Your task to perform on an android device: turn off smart reply in the gmail app Image 0: 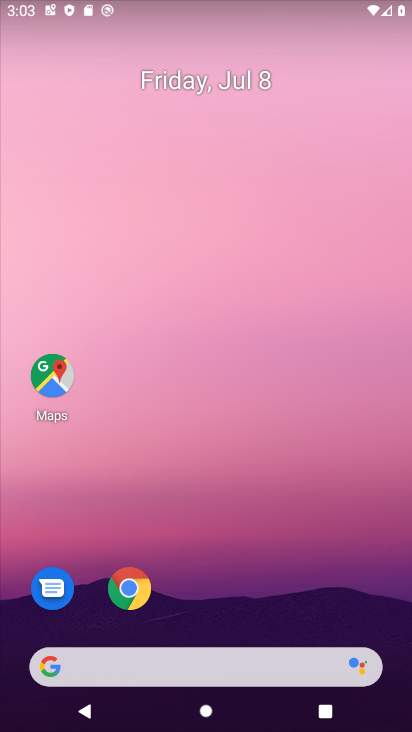
Step 0: drag from (204, 638) to (235, 95)
Your task to perform on an android device: turn off smart reply in the gmail app Image 1: 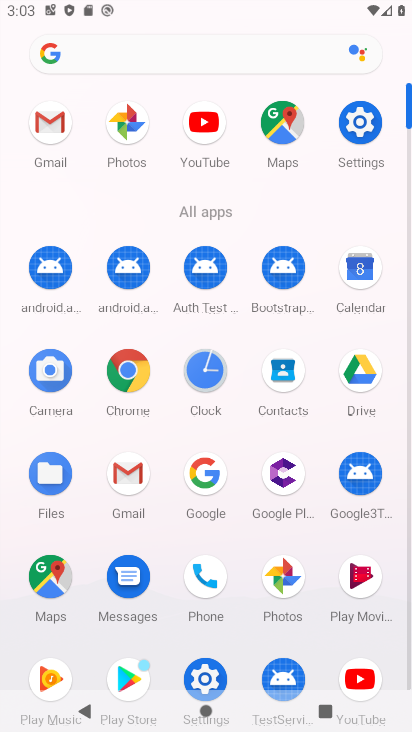
Step 1: click (59, 124)
Your task to perform on an android device: turn off smart reply in the gmail app Image 2: 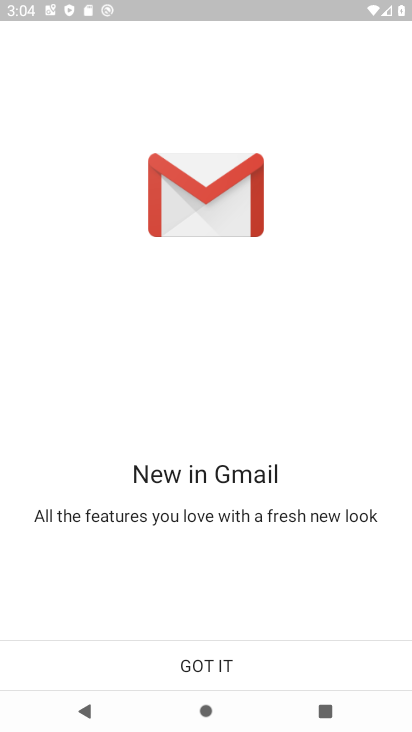
Step 2: click (204, 654)
Your task to perform on an android device: turn off smart reply in the gmail app Image 3: 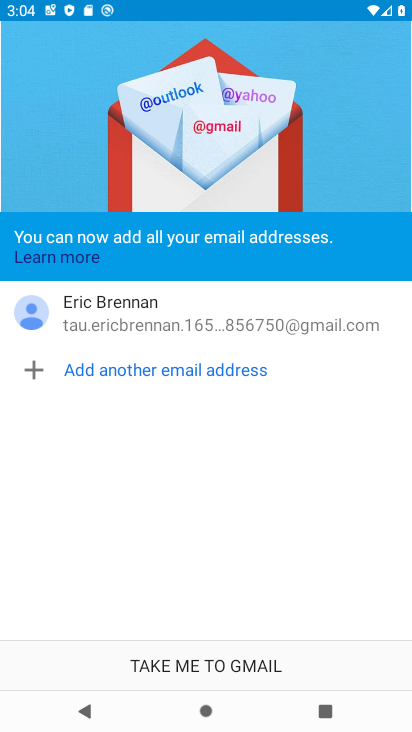
Step 3: click (204, 652)
Your task to perform on an android device: turn off smart reply in the gmail app Image 4: 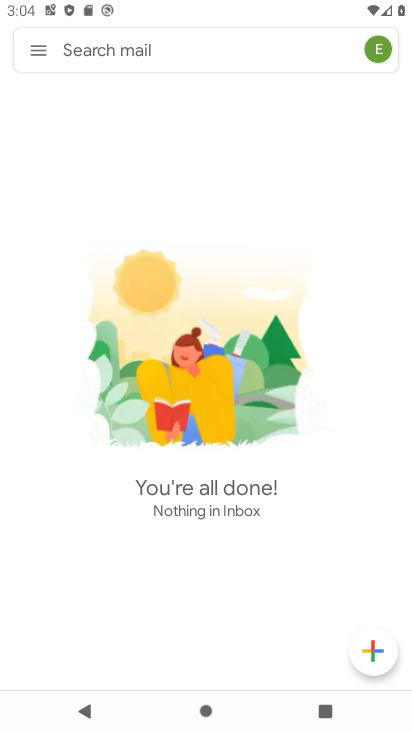
Step 4: click (40, 48)
Your task to perform on an android device: turn off smart reply in the gmail app Image 5: 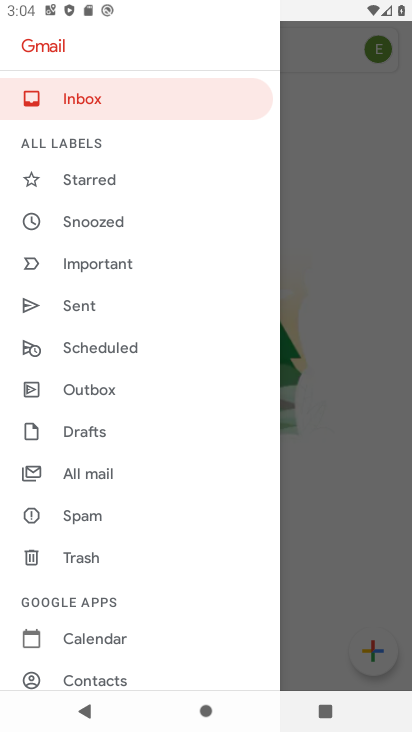
Step 5: drag from (177, 483) to (203, 107)
Your task to perform on an android device: turn off smart reply in the gmail app Image 6: 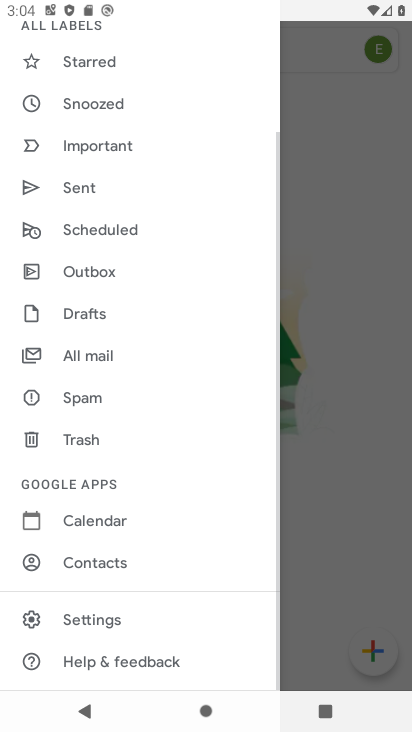
Step 6: click (120, 620)
Your task to perform on an android device: turn off smart reply in the gmail app Image 7: 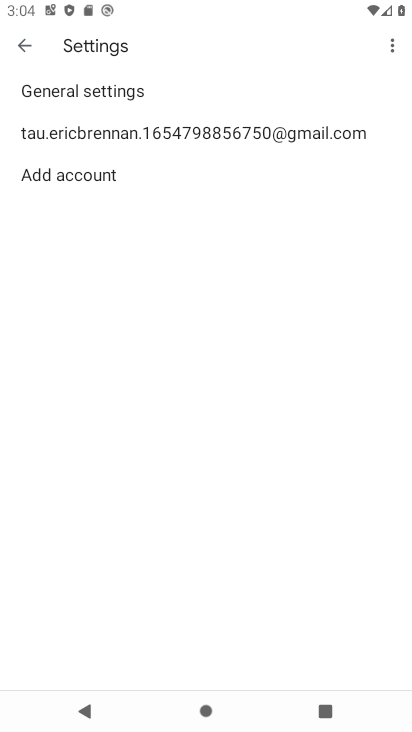
Step 7: click (250, 129)
Your task to perform on an android device: turn off smart reply in the gmail app Image 8: 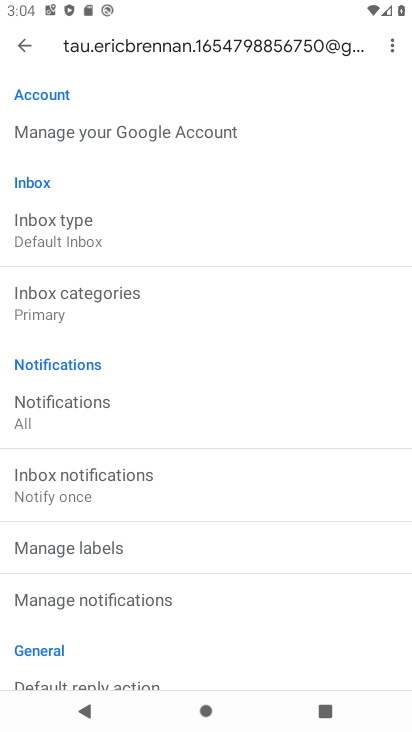
Step 8: drag from (213, 604) to (284, 22)
Your task to perform on an android device: turn off smart reply in the gmail app Image 9: 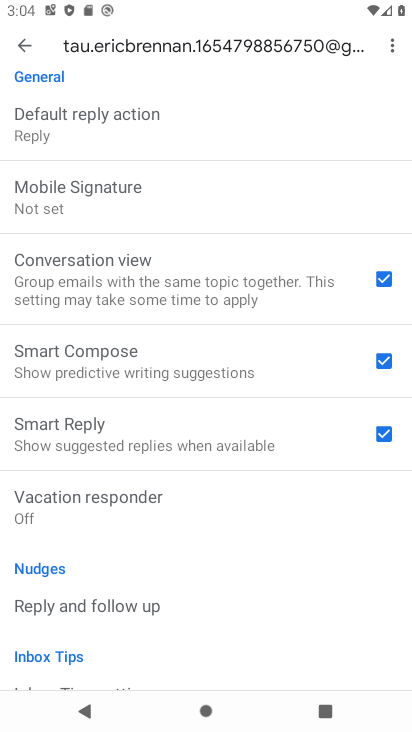
Step 9: click (380, 436)
Your task to perform on an android device: turn off smart reply in the gmail app Image 10: 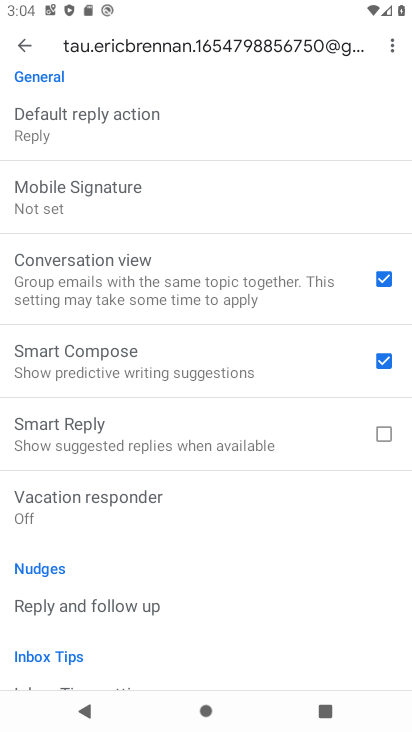
Step 10: task complete